Your task to perform on an android device: turn off notifications settings in the gmail app Image 0: 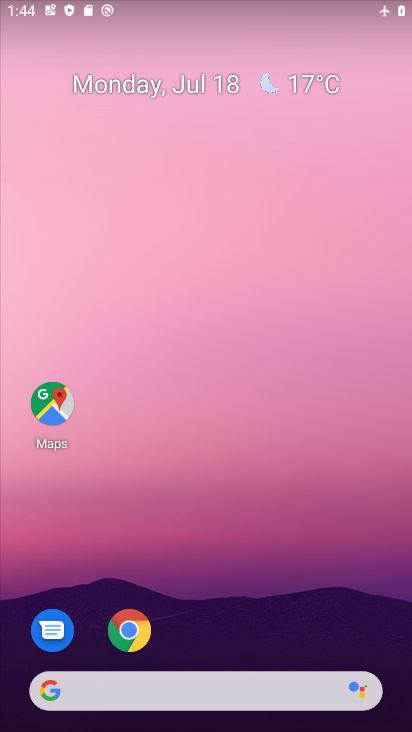
Step 0: drag from (271, 594) to (260, 3)
Your task to perform on an android device: turn off notifications settings in the gmail app Image 1: 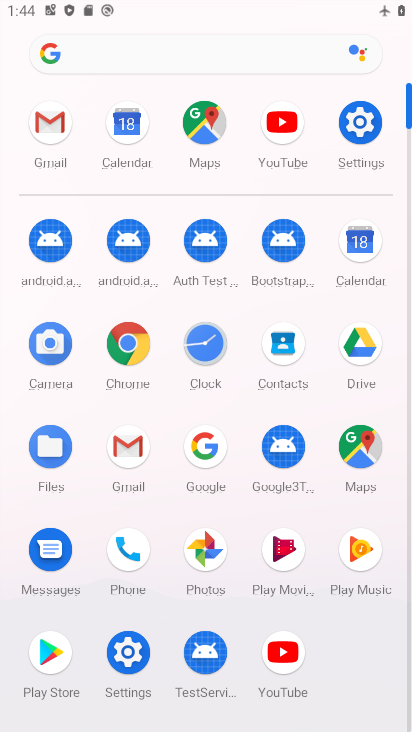
Step 1: click (47, 124)
Your task to perform on an android device: turn off notifications settings in the gmail app Image 2: 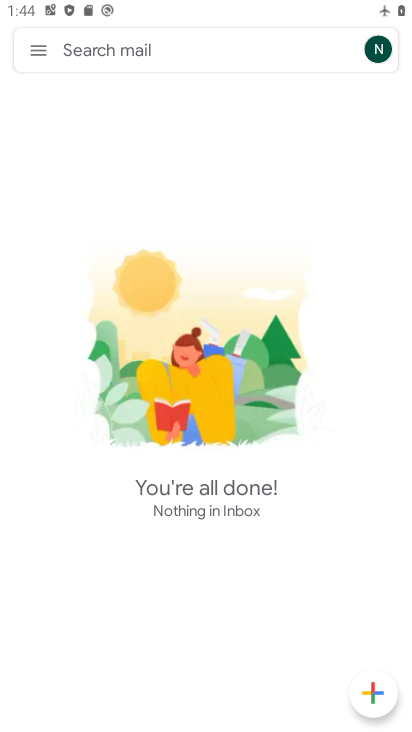
Step 2: click (43, 54)
Your task to perform on an android device: turn off notifications settings in the gmail app Image 3: 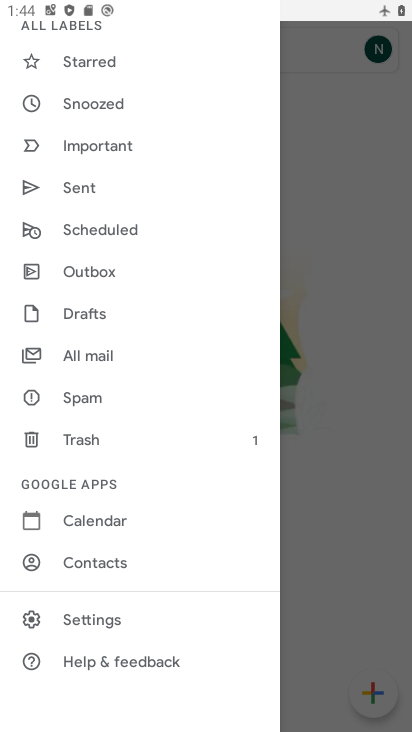
Step 3: click (106, 624)
Your task to perform on an android device: turn off notifications settings in the gmail app Image 4: 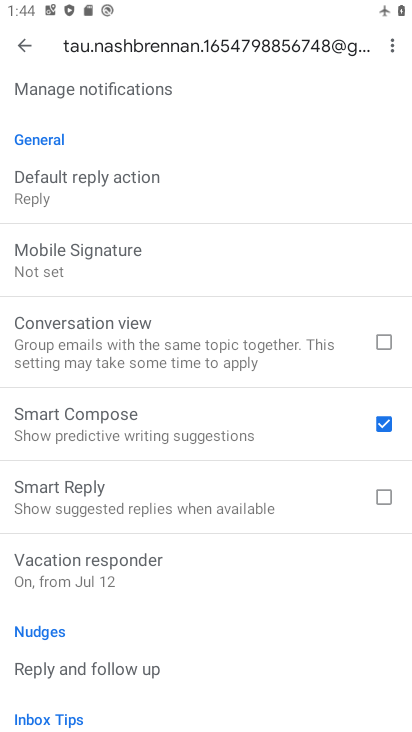
Step 4: drag from (186, 142) to (219, 552)
Your task to perform on an android device: turn off notifications settings in the gmail app Image 5: 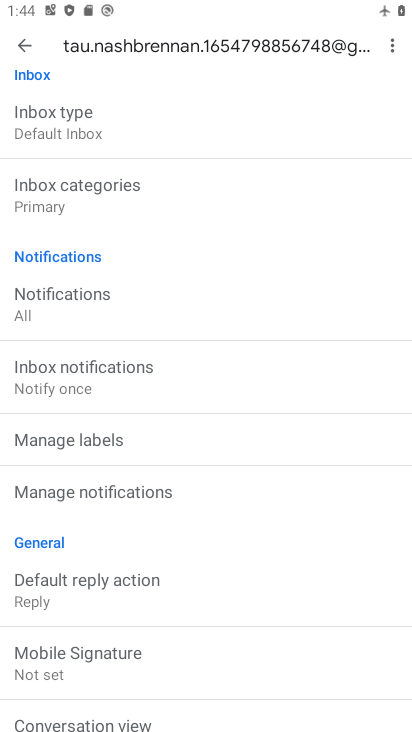
Step 5: click (197, 489)
Your task to perform on an android device: turn off notifications settings in the gmail app Image 6: 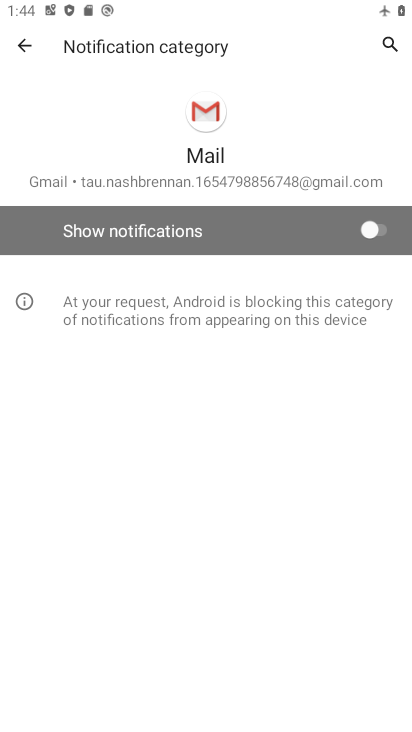
Step 6: task complete